Your task to perform on an android device: turn on translation in the chrome app Image 0: 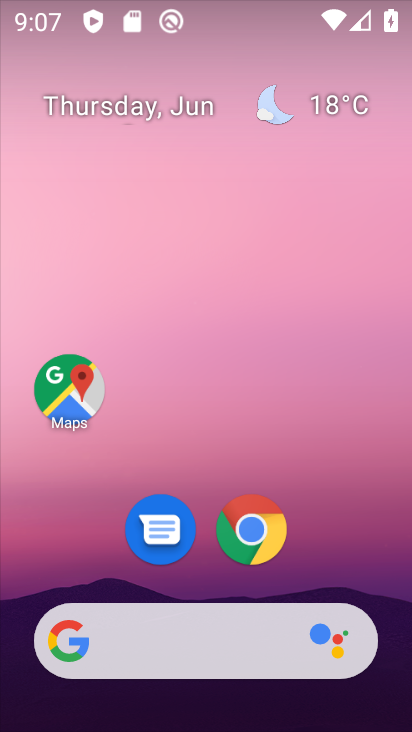
Step 0: drag from (240, 601) to (120, 18)
Your task to perform on an android device: turn on translation in the chrome app Image 1: 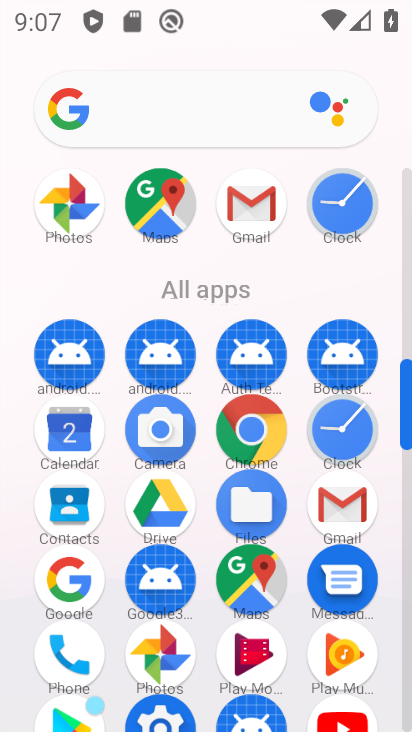
Step 1: drag from (146, 106) to (131, 27)
Your task to perform on an android device: turn on translation in the chrome app Image 2: 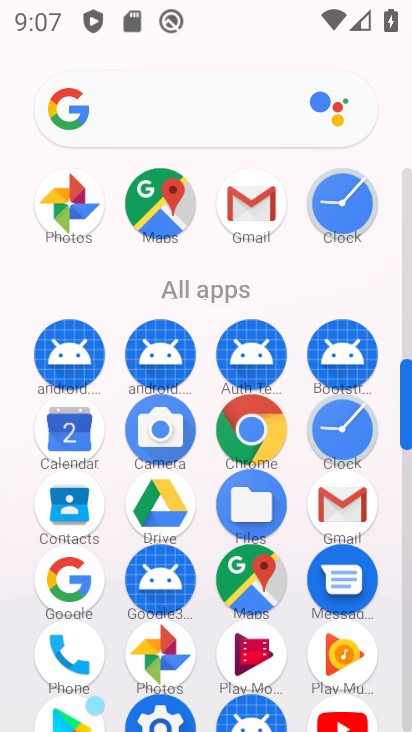
Step 2: drag from (225, 415) to (184, 6)
Your task to perform on an android device: turn on translation in the chrome app Image 3: 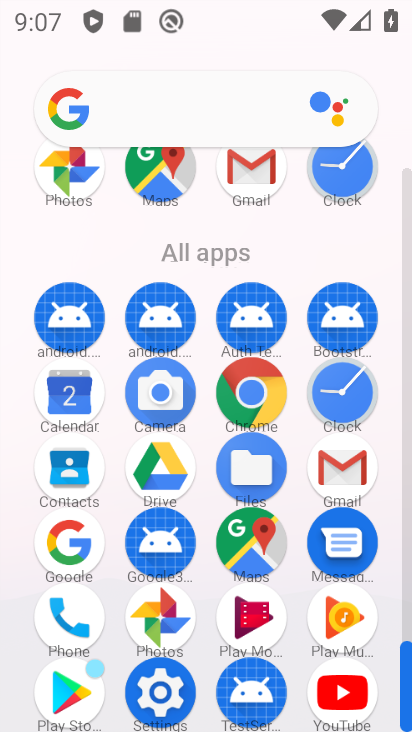
Step 3: click (253, 392)
Your task to perform on an android device: turn on translation in the chrome app Image 4: 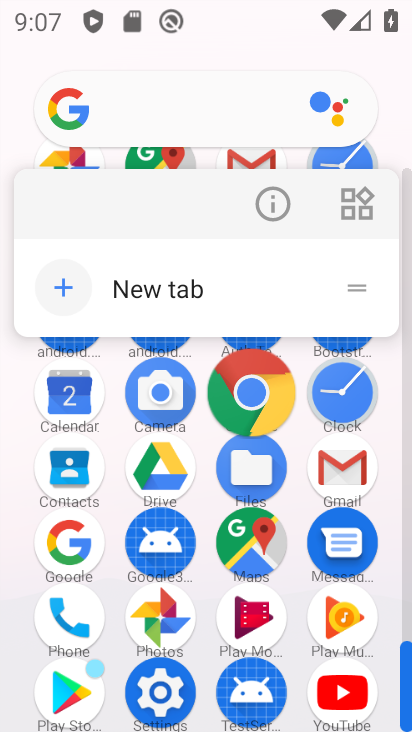
Step 4: click (247, 389)
Your task to perform on an android device: turn on translation in the chrome app Image 5: 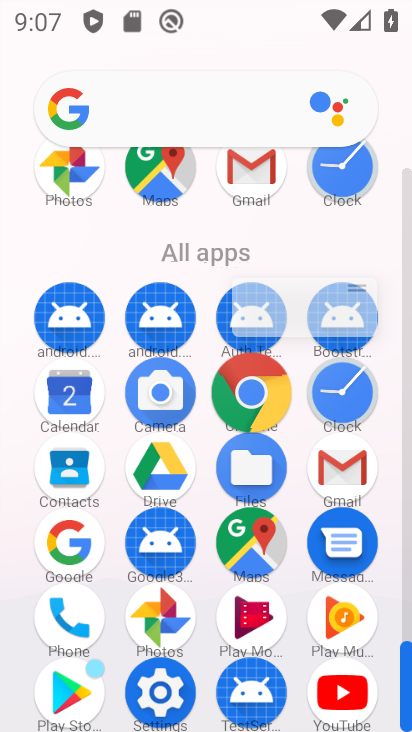
Step 5: click (243, 383)
Your task to perform on an android device: turn on translation in the chrome app Image 6: 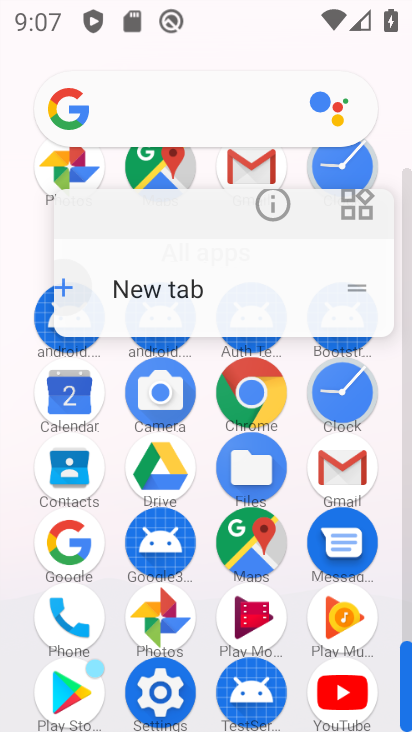
Step 6: click (246, 380)
Your task to perform on an android device: turn on translation in the chrome app Image 7: 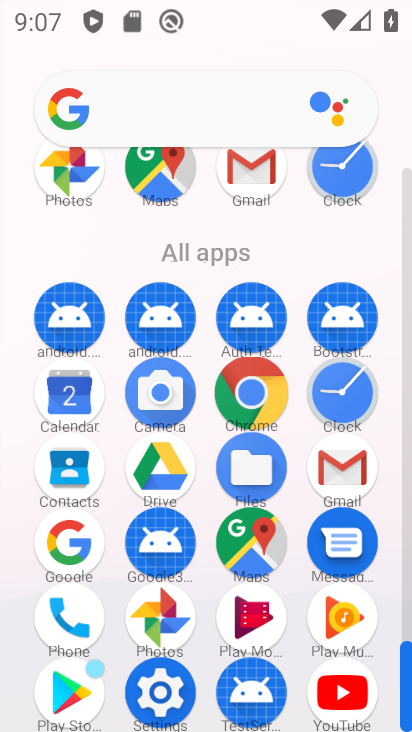
Step 7: click (246, 379)
Your task to perform on an android device: turn on translation in the chrome app Image 8: 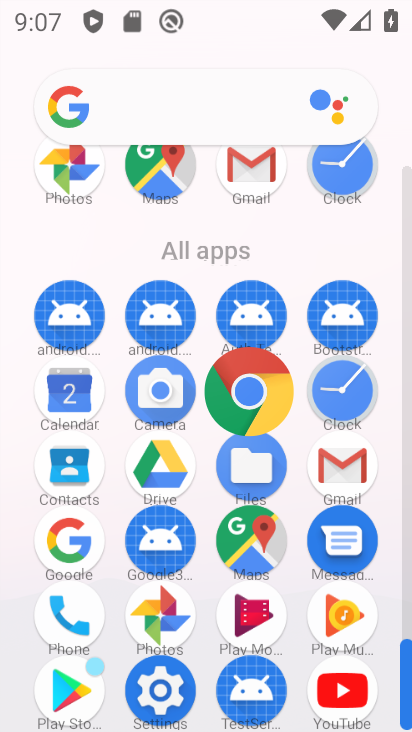
Step 8: click (246, 379)
Your task to perform on an android device: turn on translation in the chrome app Image 9: 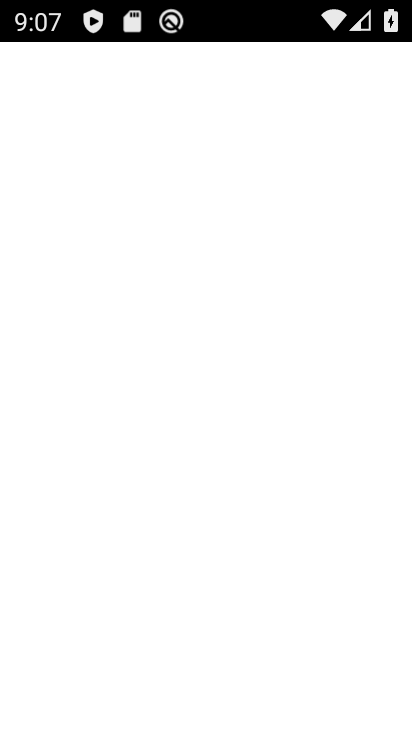
Step 9: click (246, 379)
Your task to perform on an android device: turn on translation in the chrome app Image 10: 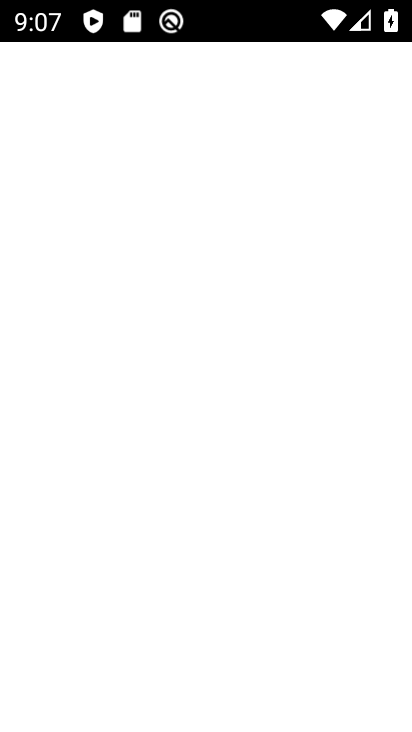
Step 10: click (249, 379)
Your task to perform on an android device: turn on translation in the chrome app Image 11: 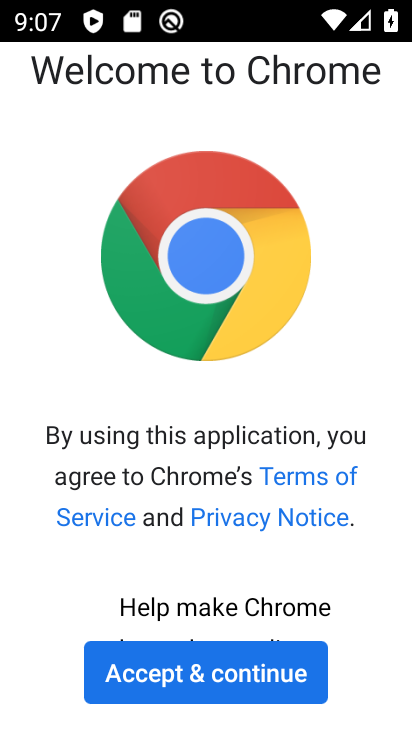
Step 11: click (220, 689)
Your task to perform on an android device: turn on translation in the chrome app Image 12: 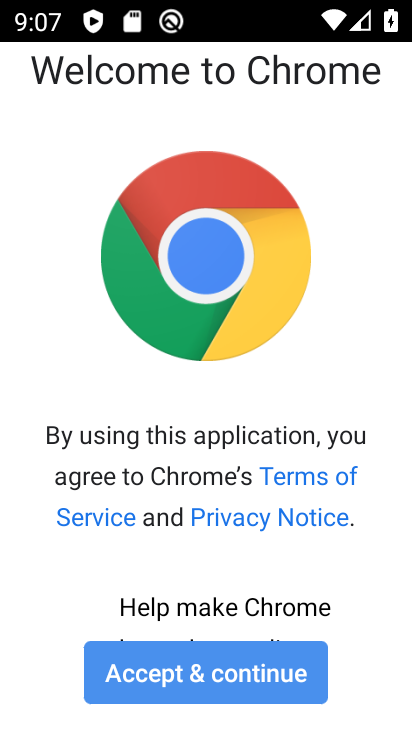
Step 12: click (234, 662)
Your task to perform on an android device: turn on translation in the chrome app Image 13: 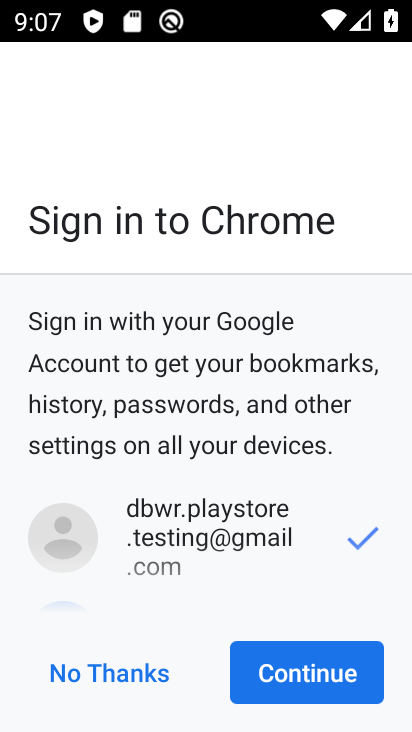
Step 13: click (241, 674)
Your task to perform on an android device: turn on translation in the chrome app Image 14: 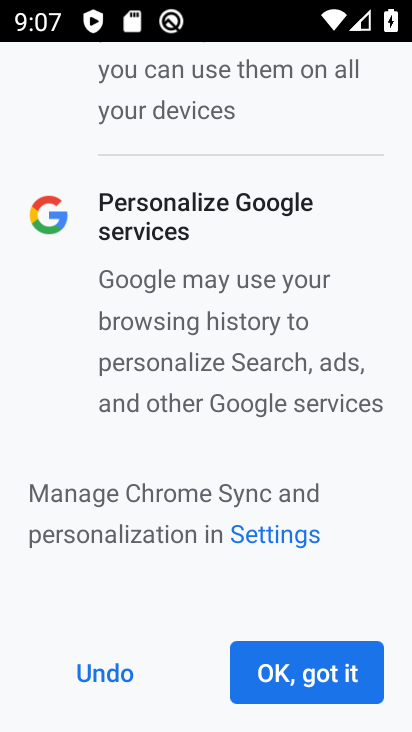
Step 14: click (289, 671)
Your task to perform on an android device: turn on translation in the chrome app Image 15: 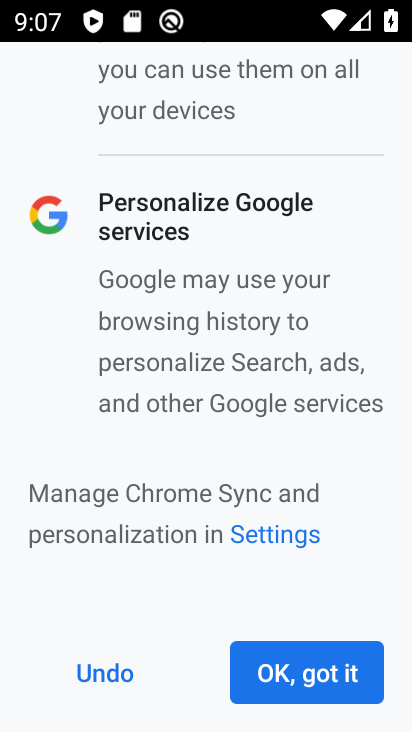
Step 15: click (290, 671)
Your task to perform on an android device: turn on translation in the chrome app Image 16: 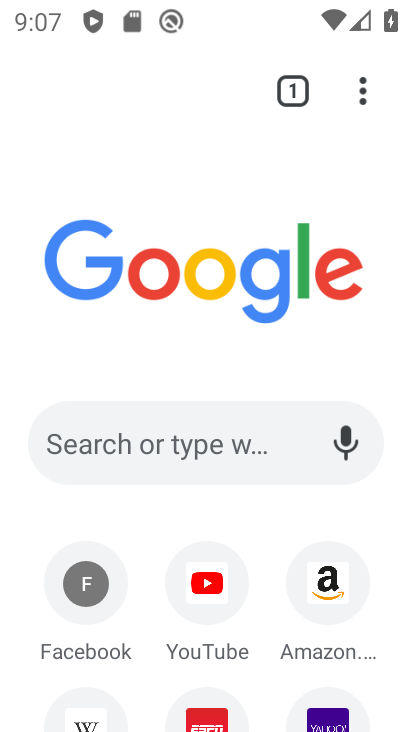
Step 16: drag from (358, 98) to (86, 554)
Your task to perform on an android device: turn on translation in the chrome app Image 17: 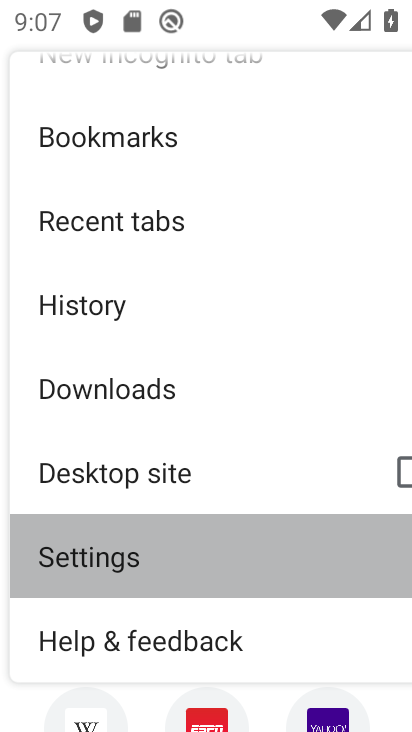
Step 17: click (86, 554)
Your task to perform on an android device: turn on translation in the chrome app Image 18: 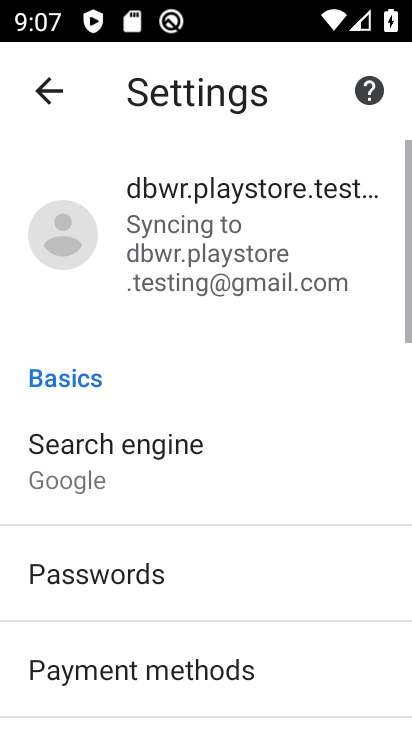
Step 18: drag from (148, 600) to (136, 40)
Your task to perform on an android device: turn on translation in the chrome app Image 19: 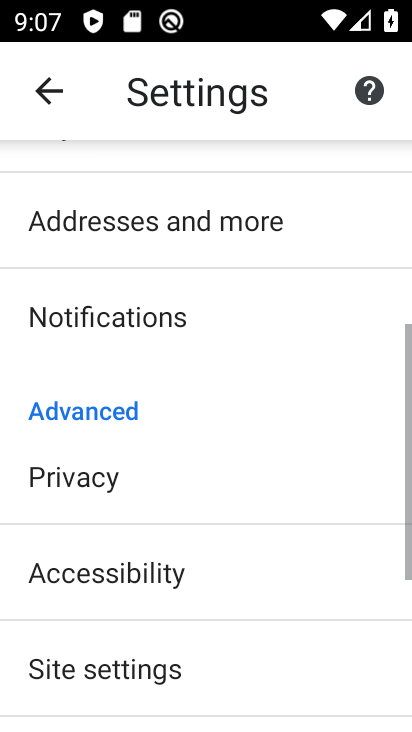
Step 19: drag from (226, 439) to (233, 165)
Your task to perform on an android device: turn on translation in the chrome app Image 20: 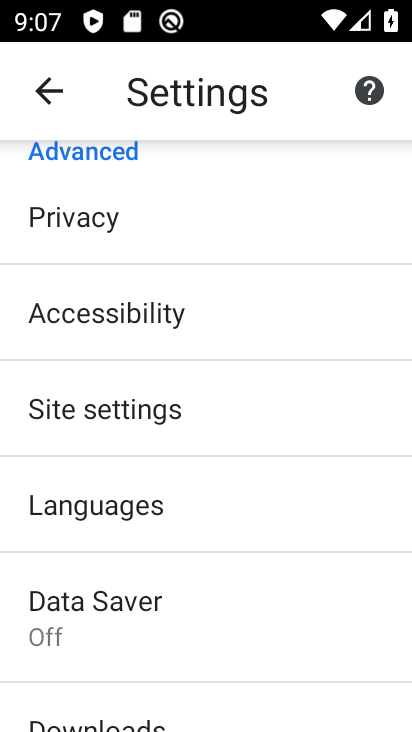
Step 20: click (94, 521)
Your task to perform on an android device: turn on translation in the chrome app Image 21: 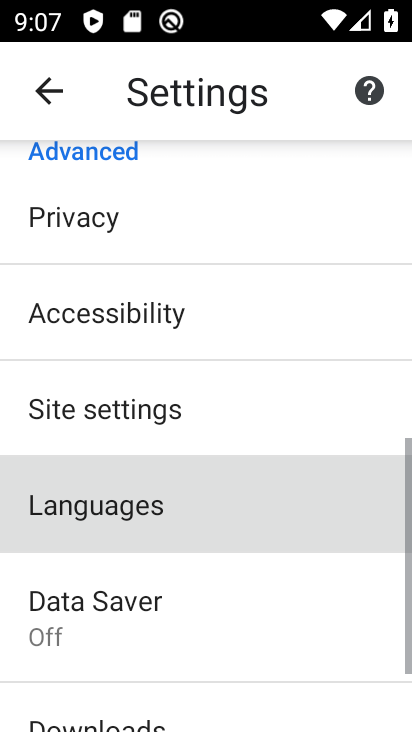
Step 21: click (93, 509)
Your task to perform on an android device: turn on translation in the chrome app Image 22: 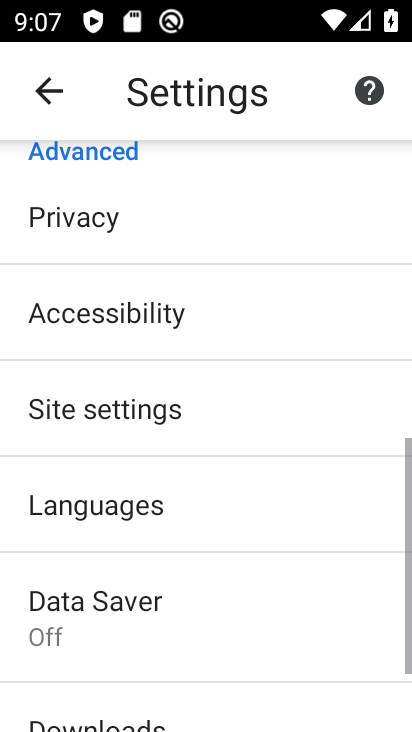
Step 22: click (104, 504)
Your task to perform on an android device: turn on translation in the chrome app Image 23: 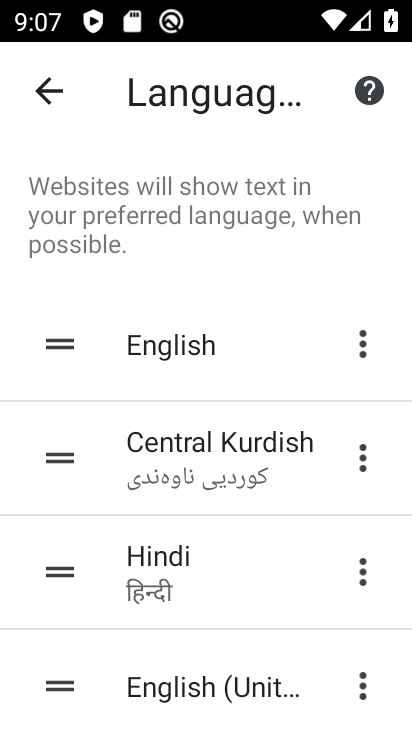
Step 23: task complete